Your task to perform on an android device: What's the weather going to be this weekend? Image 0: 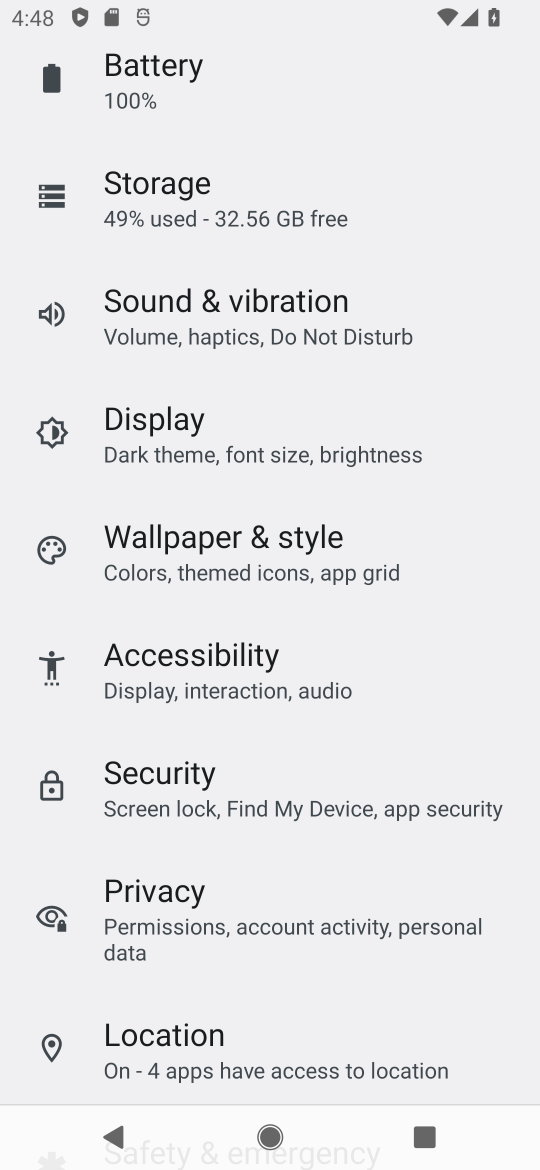
Step 0: press home button
Your task to perform on an android device: What's the weather going to be this weekend? Image 1: 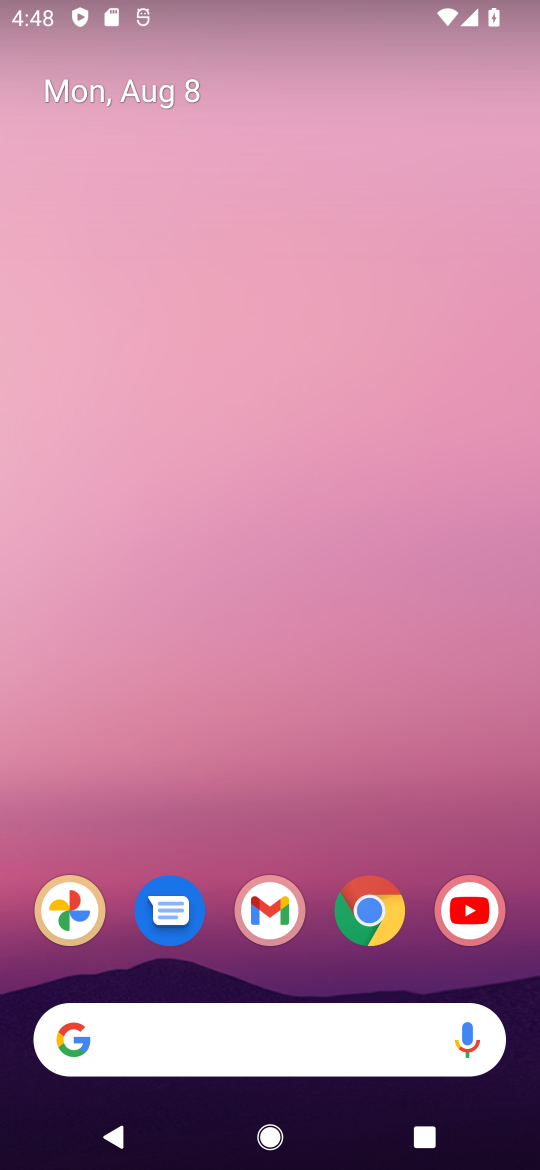
Step 1: drag from (212, 1034) to (252, 413)
Your task to perform on an android device: What's the weather going to be this weekend? Image 2: 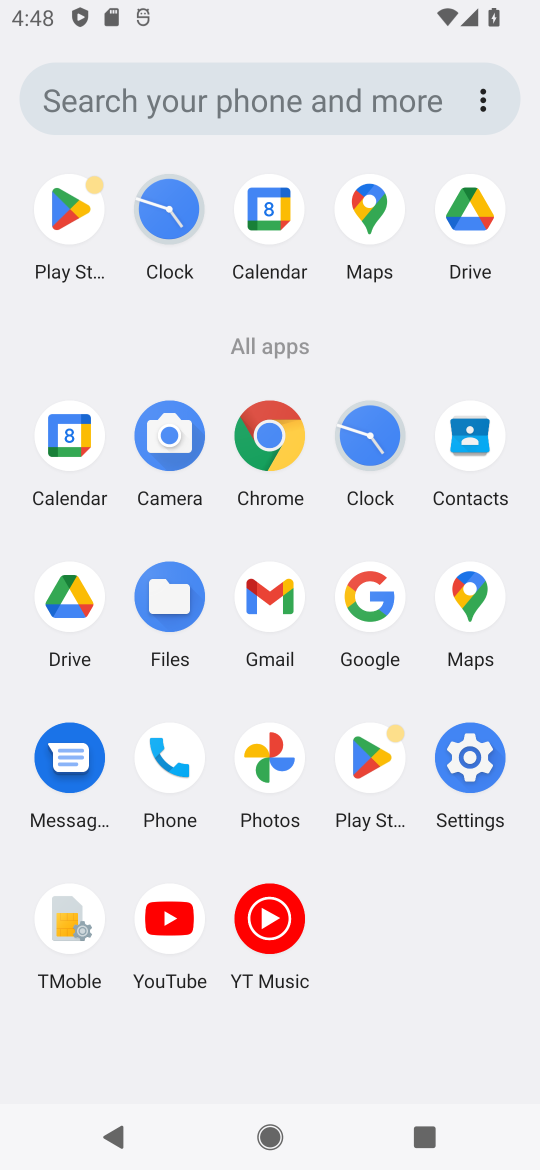
Step 2: click (364, 591)
Your task to perform on an android device: What's the weather going to be this weekend? Image 3: 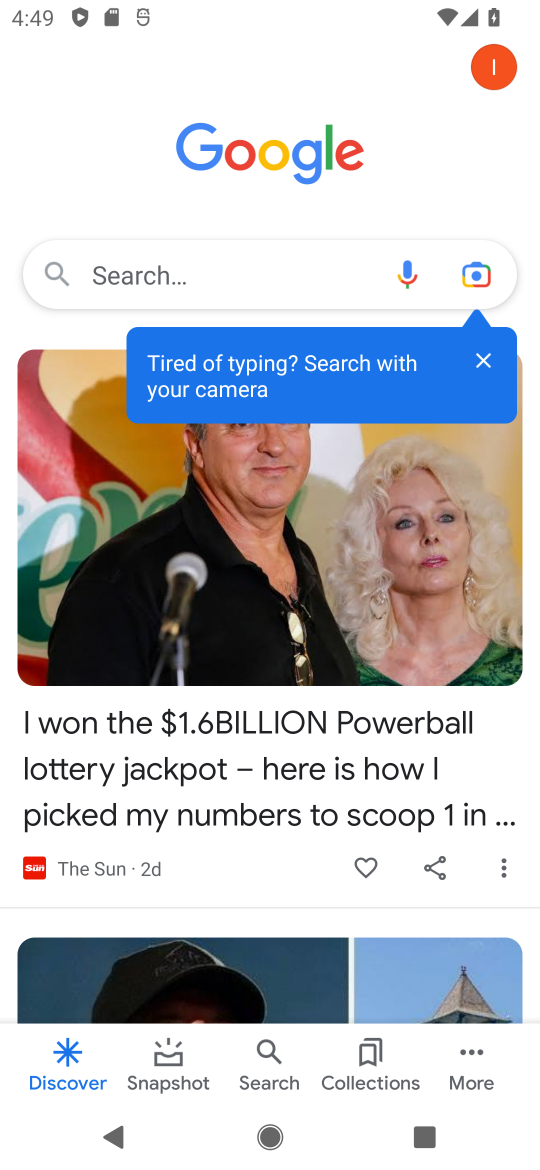
Step 3: click (207, 265)
Your task to perform on an android device: What's the weather going to be this weekend? Image 4: 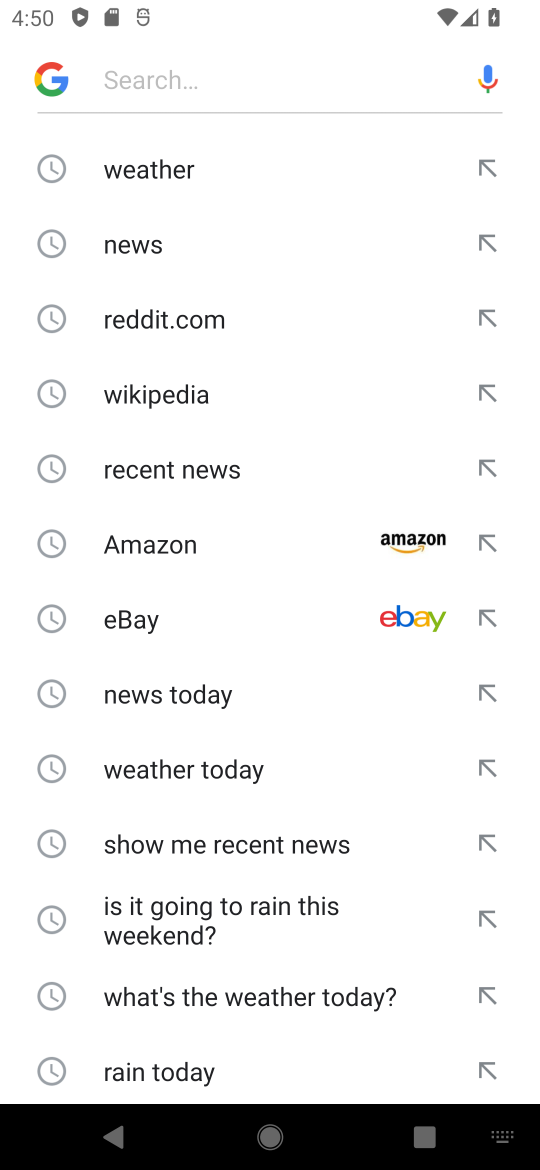
Step 4: type "What's the weather going to be  this weekend?"
Your task to perform on an android device: What's the weather going to be this weekend? Image 5: 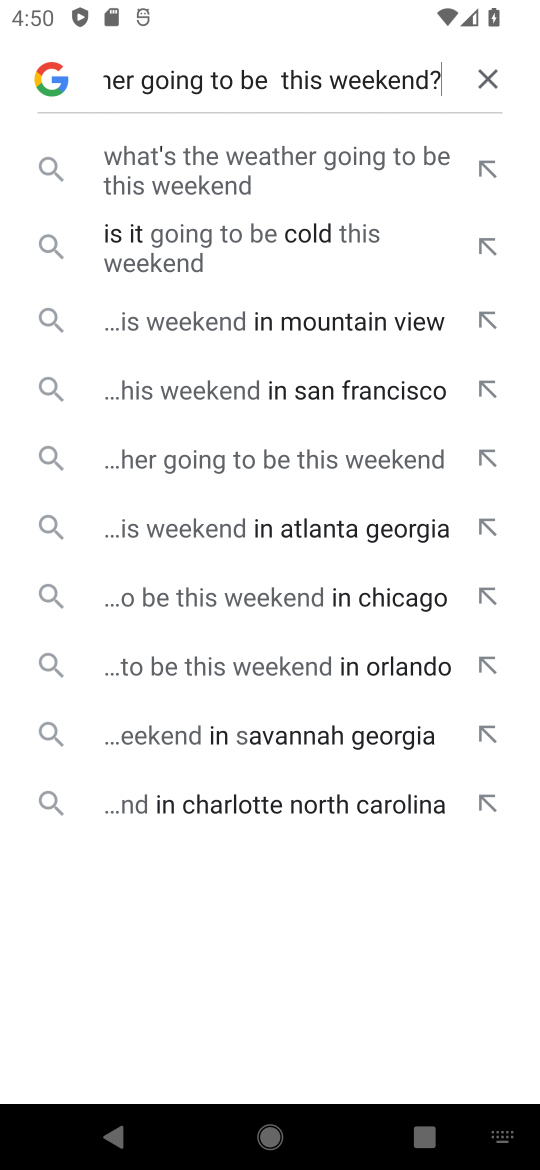
Step 5: click (310, 175)
Your task to perform on an android device: What's the weather going to be this weekend? Image 6: 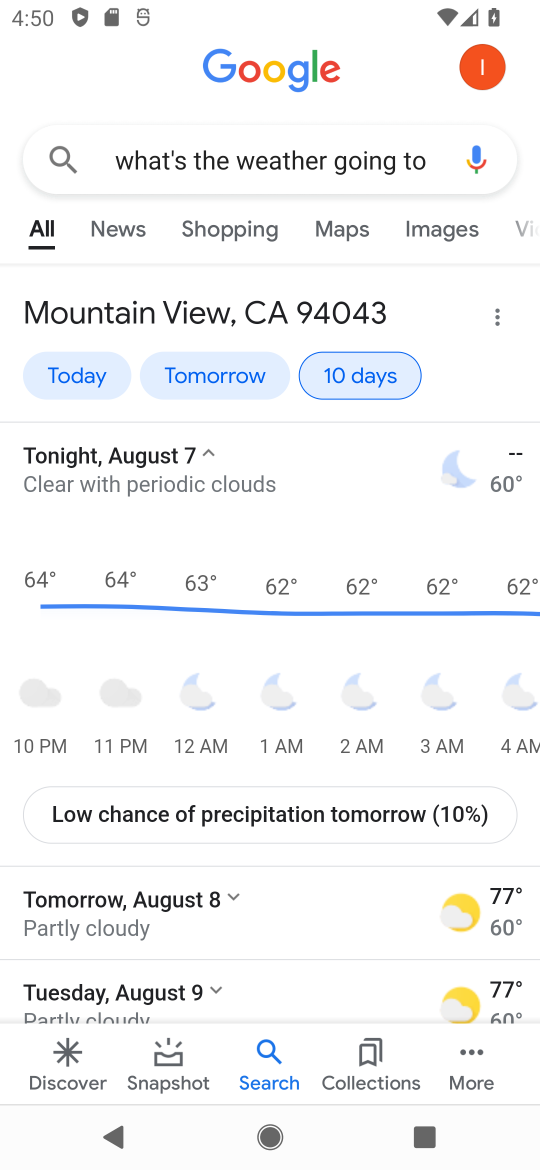
Step 6: task complete